Your task to perform on an android device: Open settings on Google Maps Image 0: 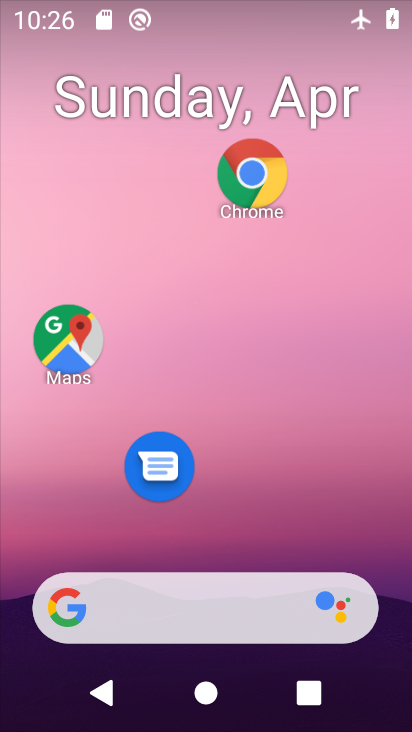
Step 0: drag from (332, 551) to (382, 30)
Your task to perform on an android device: Open settings on Google Maps Image 1: 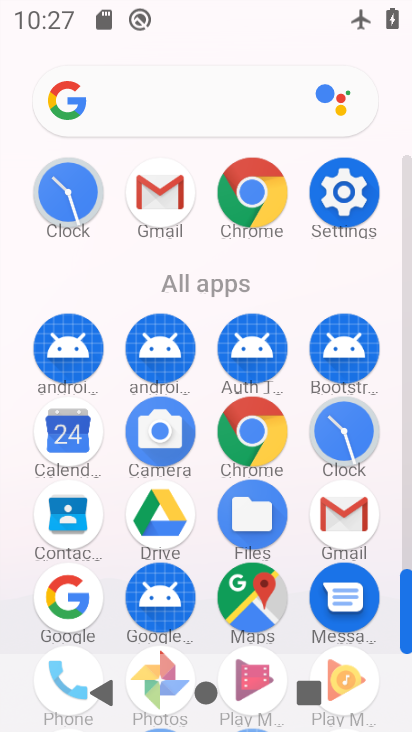
Step 1: click (266, 597)
Your task to perform on an android device: Open settings on Google Maps Image 2: 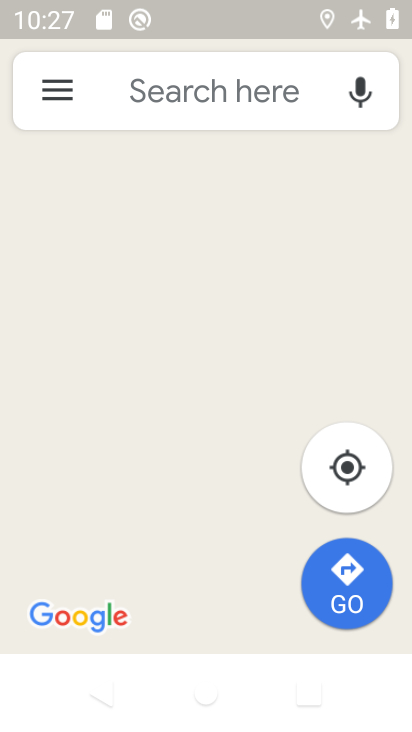
Step 2: task complete